Your task to perform on an android device: turn on location history Image 0: 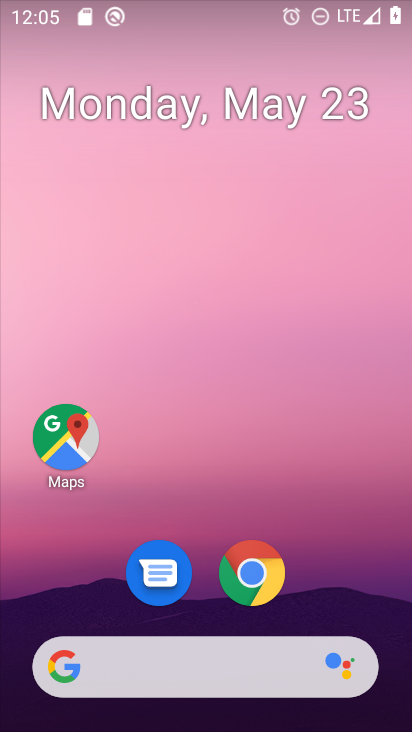
Step 0: drag from (327, 601) to (330, 116)
Your task to perform on an android device: turn on location history Image 1: 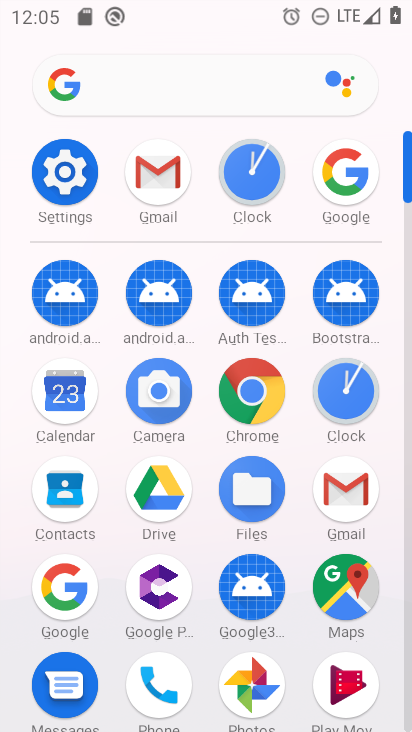
Step 1: click (59, 184)
Your task to perform on an android device: turn on location history Image 2: 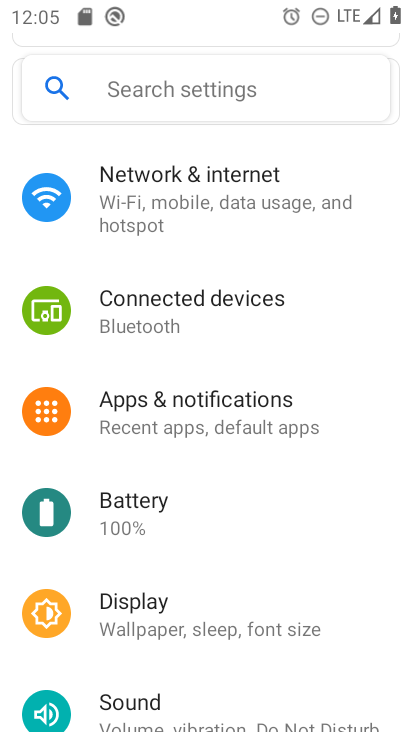
Step 2: drag from (176, 663) to (202, 348)
Your task to perform on an android device: turn on location history Image 3: 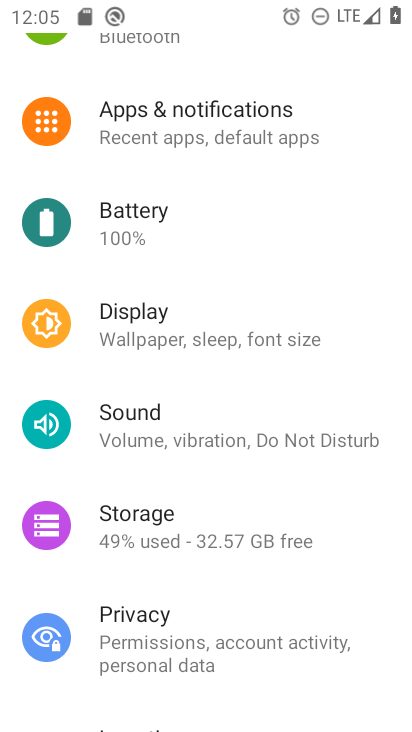
Step 3: drag from (163, 675) to (158, 469)
Your task to perform on an android device: turn on location history Image 4: 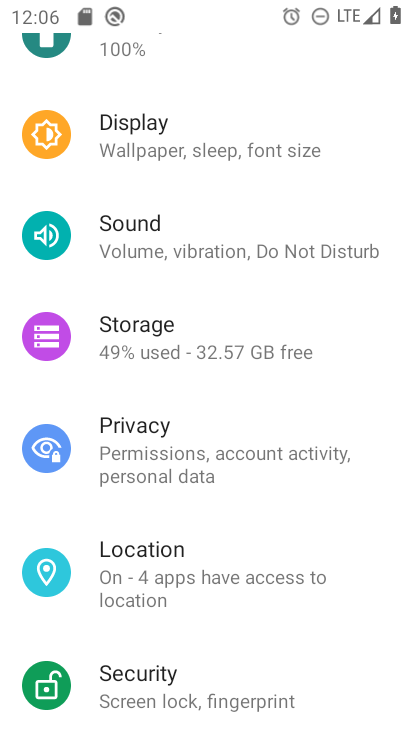
Step 4: click (189, 577)
Your task to perform on an android device: turn on location history Image 5: 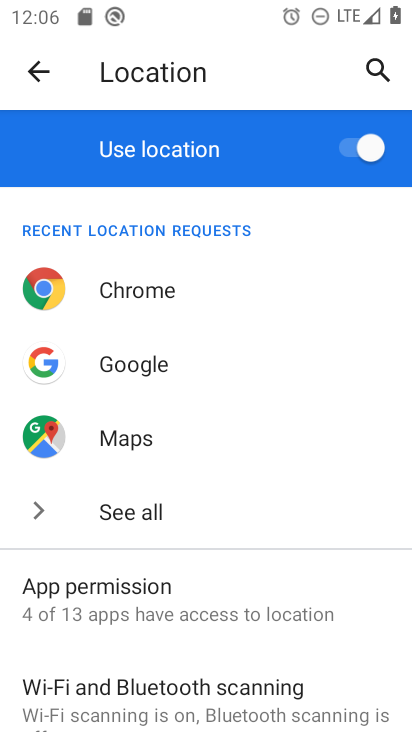
Step 5: drag from (127, 665) to (177, 446)
Your task to perform on an android device: turn on location history Image 6: 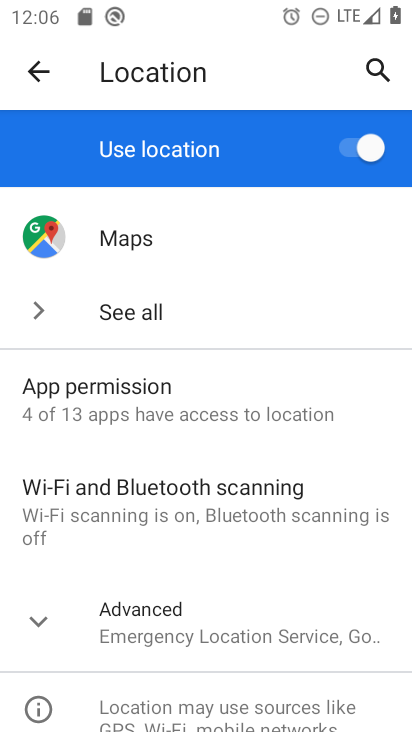
Step 6: click (170, 634)
Your task to perform on an android device: turn on location history Image 7: 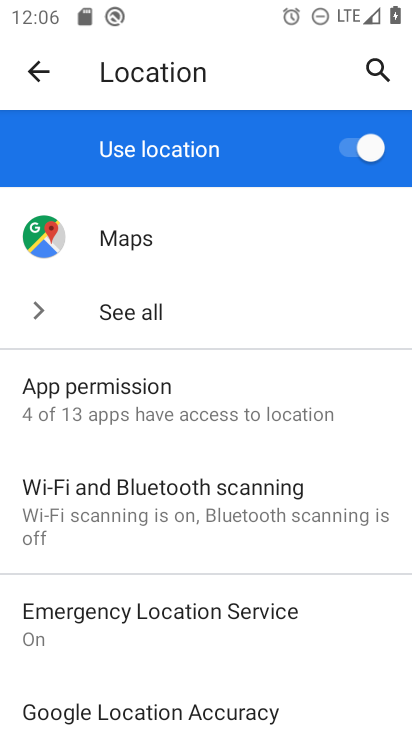
Step 7: drag from (200, 692) to (229, 440)
Your task to perform on an android device: turn on location history Image 8: 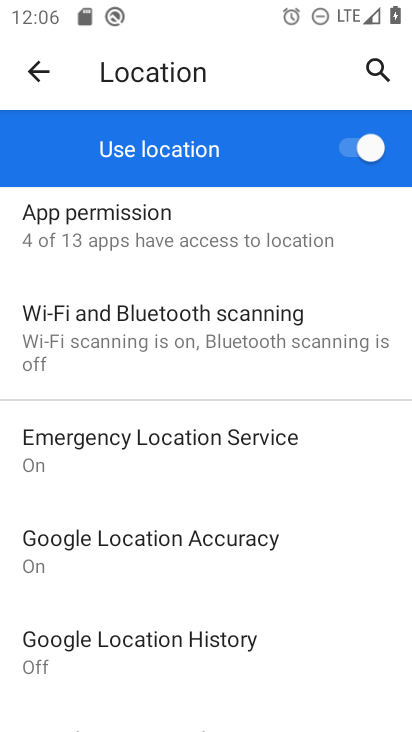
Step 8: click (214, 651)
Your task to perform on an android device: turn on location history Image 9: 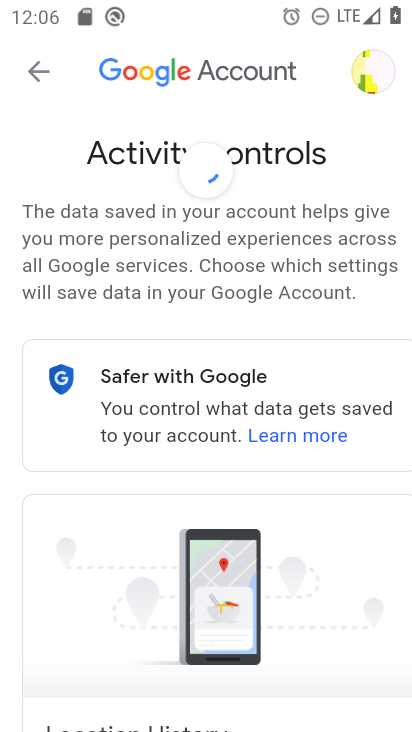
Step 9: task complete